Your task to perform on an android device: show emergency info Image 0: 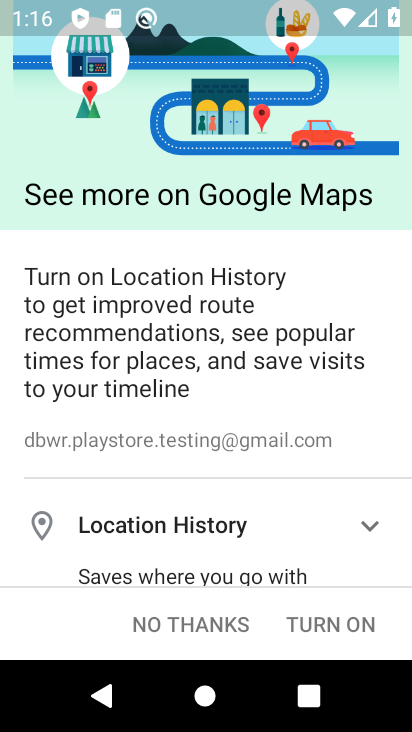
Step 0: press home button
Your task to perform on an android device: show emergency info Image 1: 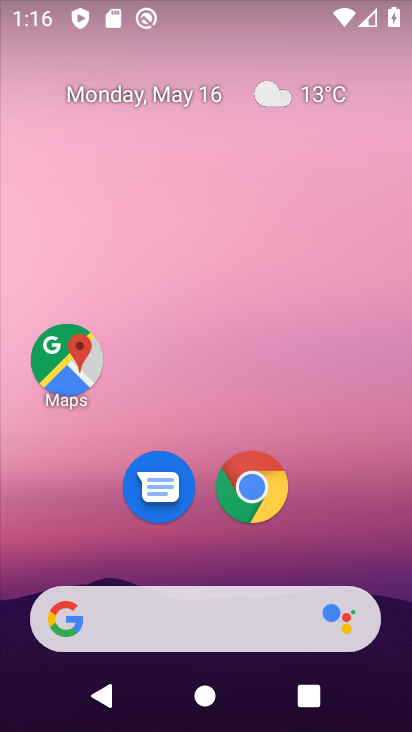
Step 1: press home button
Your task to perform on an android device: show emergency info Image 2: 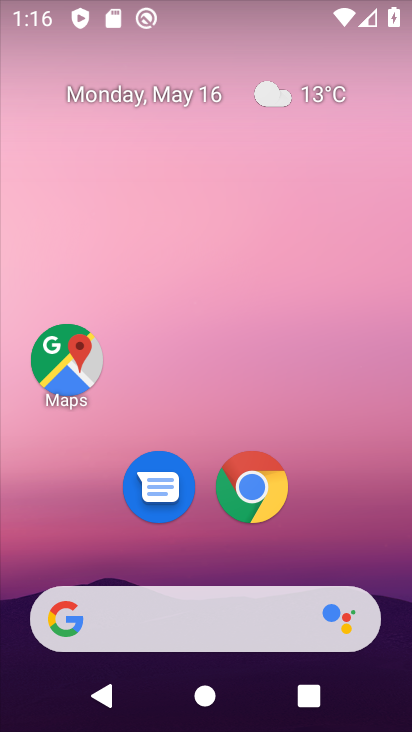
Step 2: click (180, 162)
Your task to perform on an android device: show emergency info Image 3: 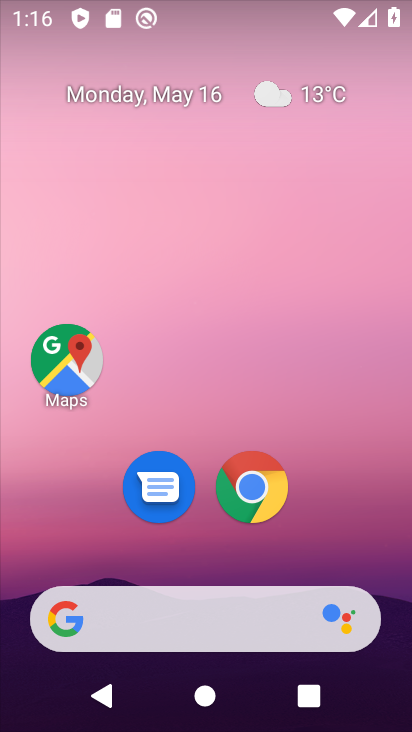
Step 3: drag from (226, 555) to (247, 119)
Your task to perform on an android device: show emergency info Image 4: 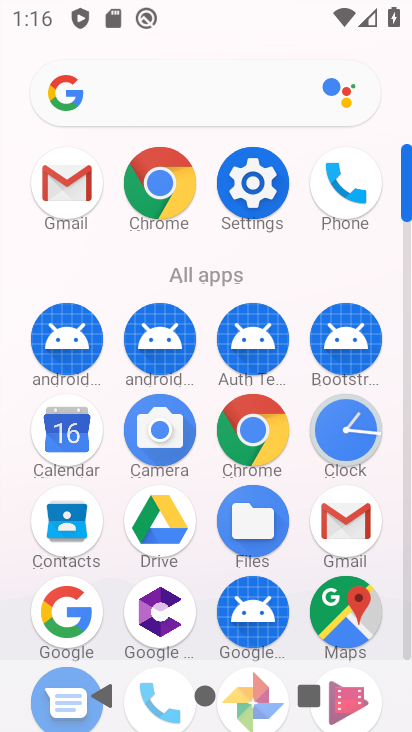
Step 4: click (249, 200)
Your task to perform on an android device: show emergency info Image 5: 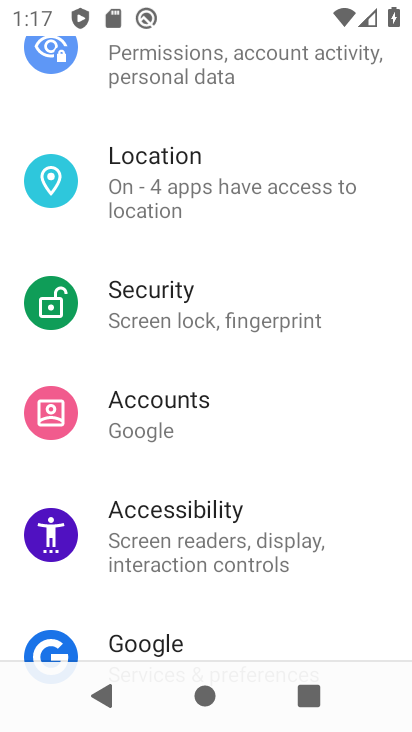
Step 5: drag from (74, 636) to (184, 166)
Your task to perform on an android device: show emergency info Image 6: 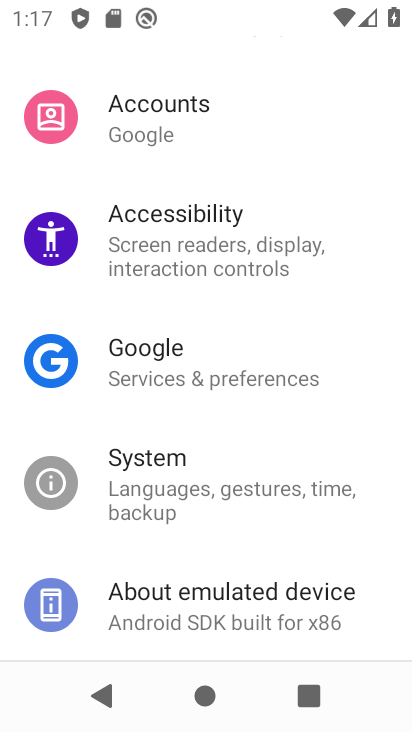
Step 6: click (165, 604)
Your task to perform on an android device: show emergency info Image 7: 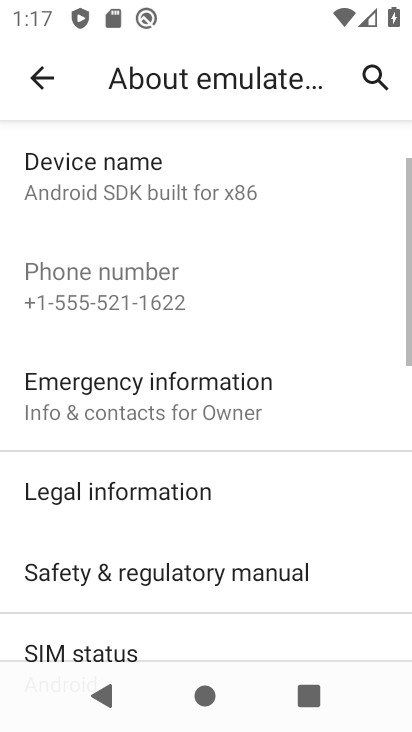
Step 7: click (168, 391)
Your task to perform on an android device: show emergency info Image 8: 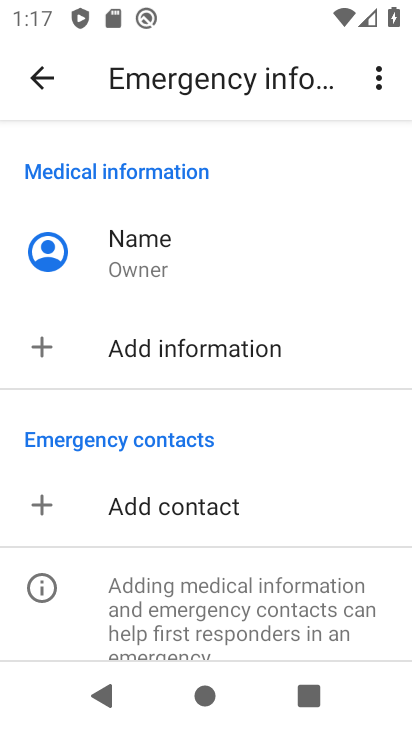
Step 8: task complete